Your task to perform on an android device: find which apps use the phone's location Image 0: 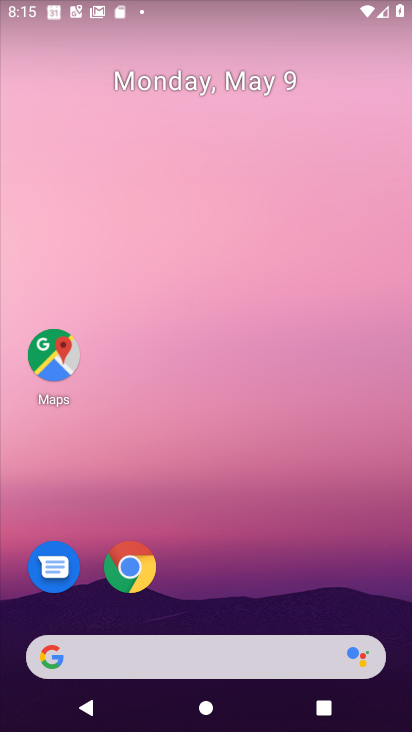
Step 0: drag from (196, 481) to (315, 247)
Your task to perform on an android device: find which apps use the phone's location Image 1: 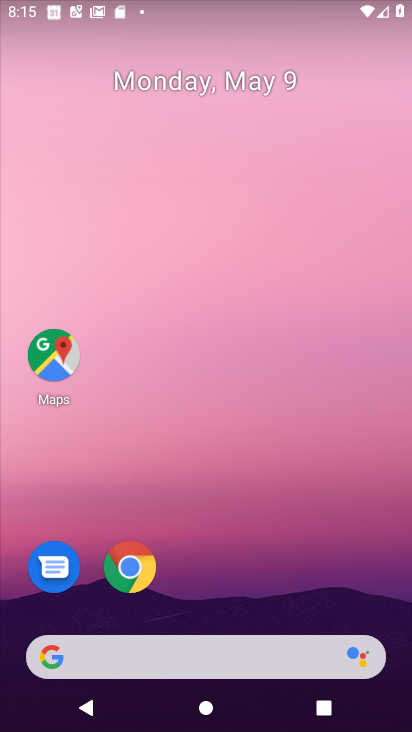
Step 1: drag from (227, 604) to (322, 232)
Your task to perform on an android device: find which apps use the phone's location Image 2: 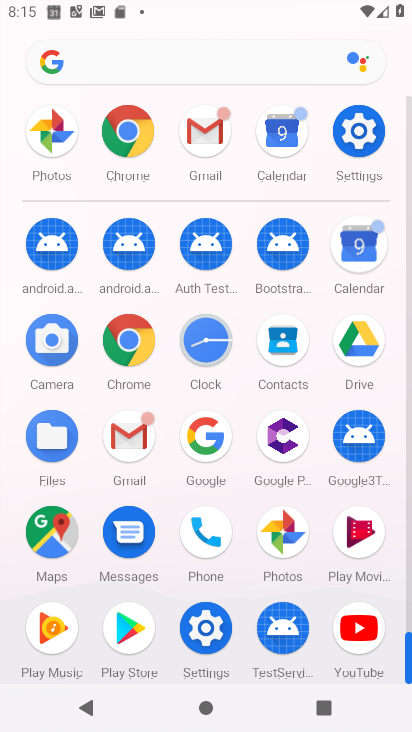
Step 2: click (201, 615)
Your task to perform on an android device: find which apps use the phone's location Image 3: 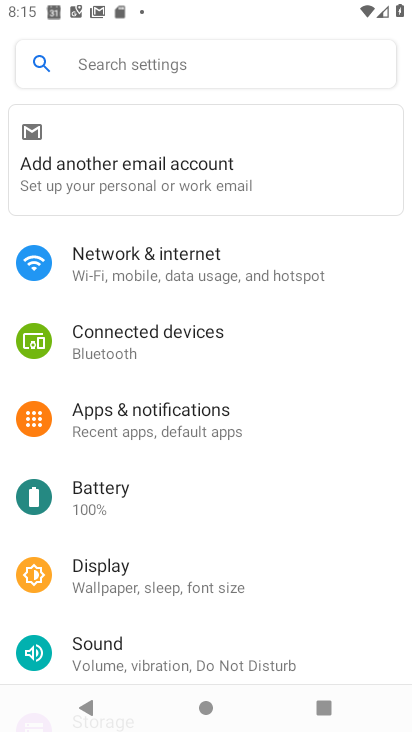
Step 3: drag from (196, 652) to (272, 315)
Your task to perform on an android device: find which apps use the phone's location Image 4: 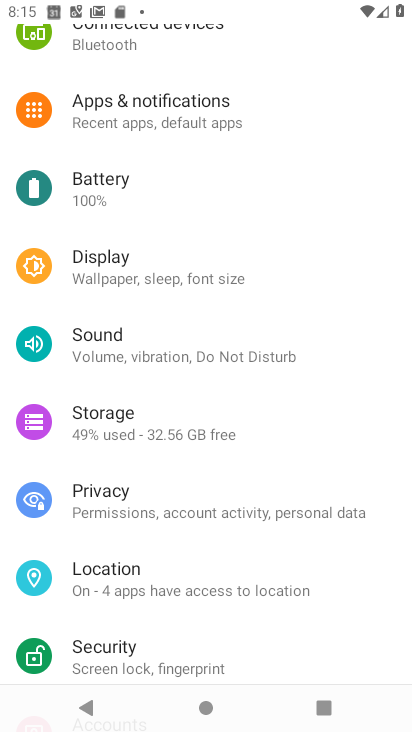
Step 4: click (147, 572)
Your task to perform on an android device: find which apps use the phone's location Image 5: 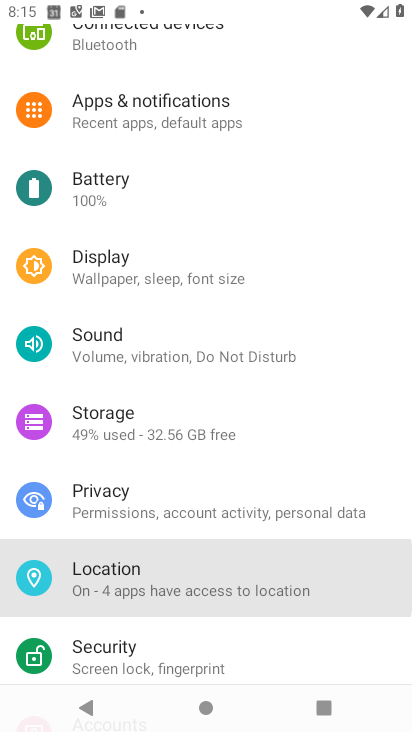
Step 5: click (147, 571)
Your task to perform on an android device: find which apps use the phone's location Image 6: 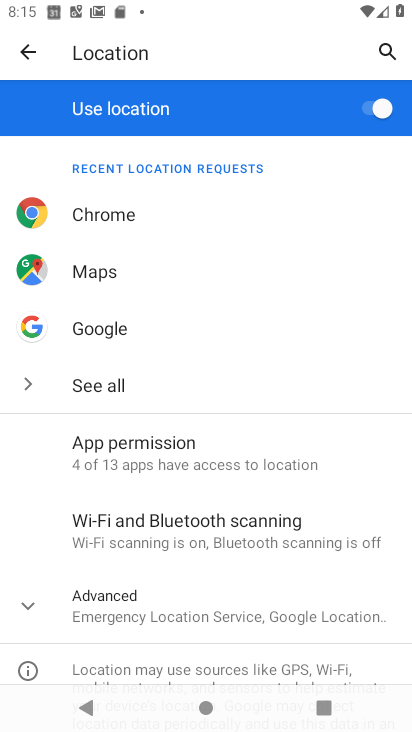
Step 6: click (211, 456)
Your task to perform on an android device: find which apps use the phone's location Image 7: 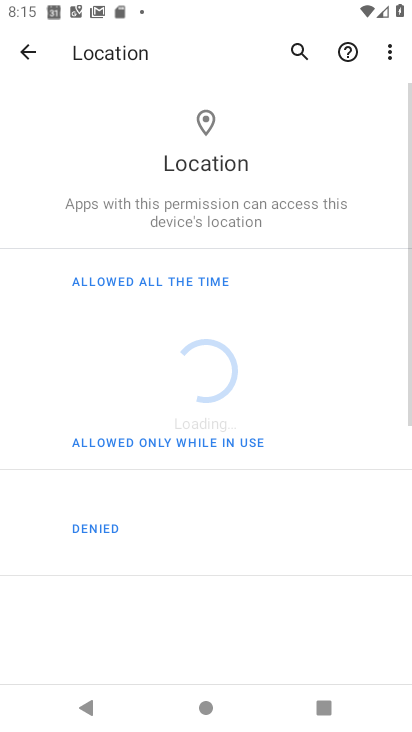
Step 7: task complete